Your task to perform on an android device: clear history in the chrome app Image 0: 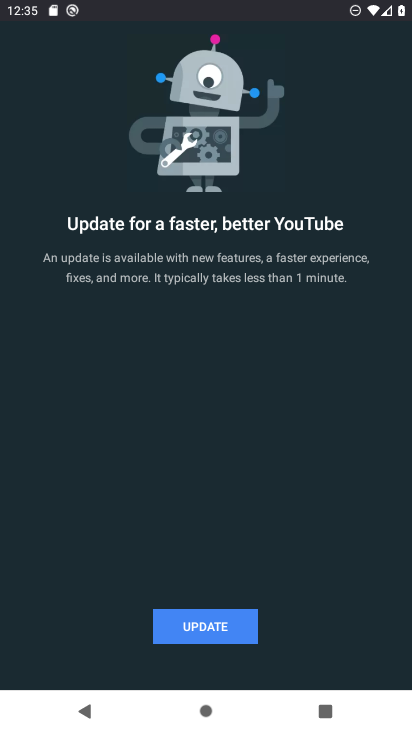
Step 0: press home button
Your task to perform on an android device: clear history in the chrome app Image 1: 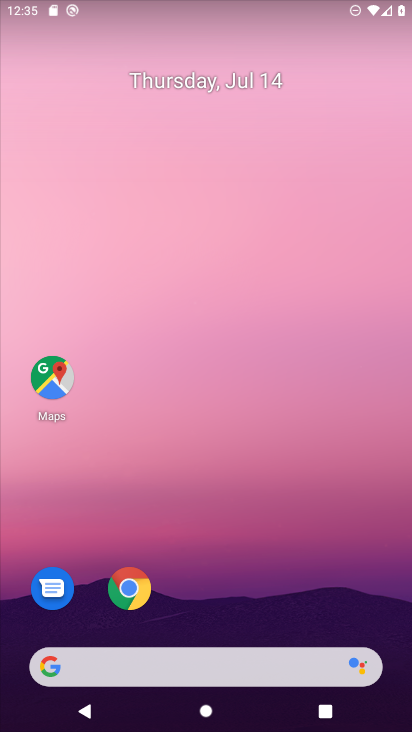
Step 1: click (130, 587)
Your task to perform on an android device: clear history in the chrome app Image 2: 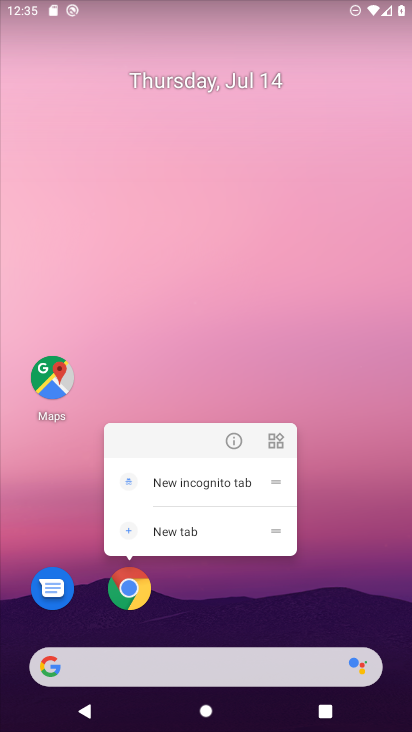
Step 2: click (130, 585)
Your task to perform on an android device: clear history in the chrome app Image 3: 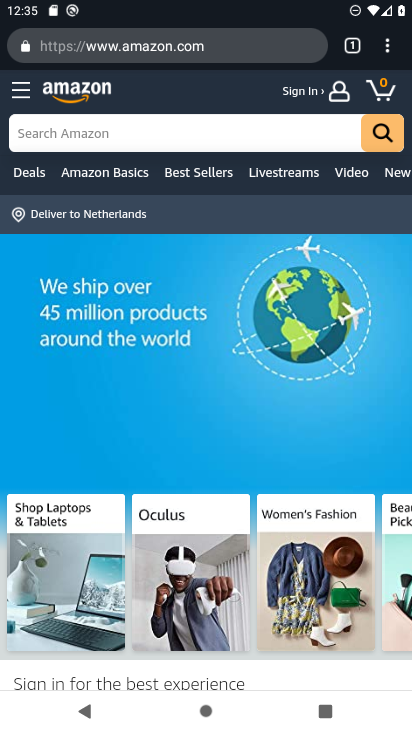
Step 3: task complete